Your task to perform on an android device: turn off sleep mode Image 0: 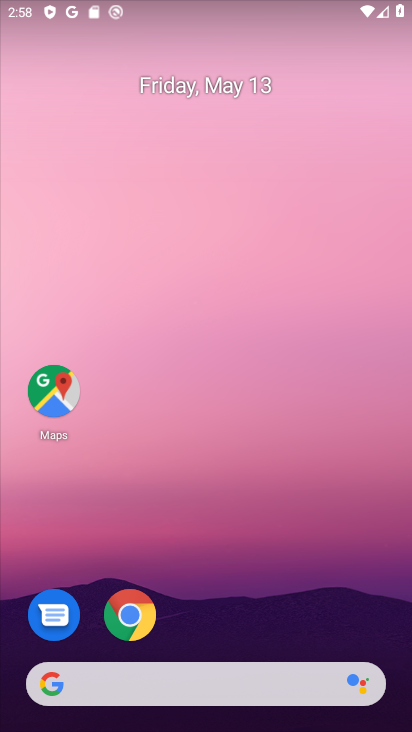
Step 0: drag from (192, 691) to (344, 214)
Your task to perform on an android device: turn off sleep mode Image 1: 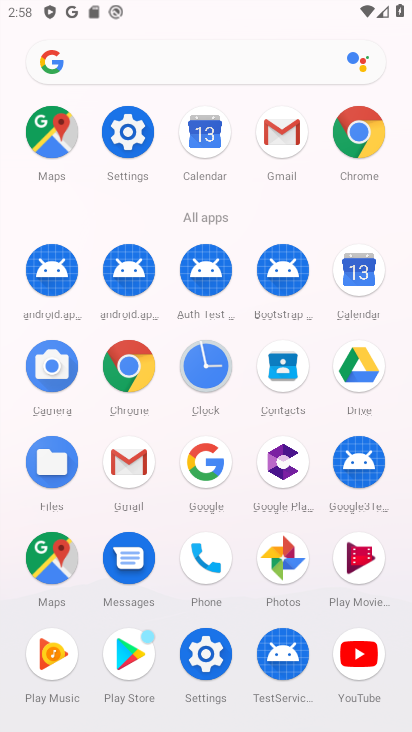
Step 1: click (142, 136)
Your task to perform on an android device: turn off sleep mode Image 2: 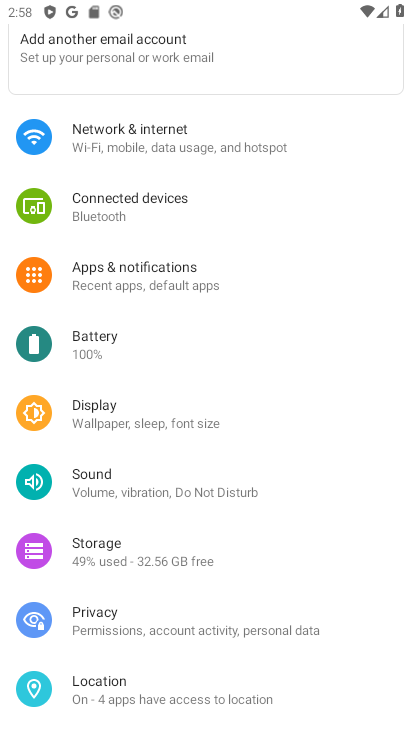
Step 2: click (174, 432)
Your task to perform on an android device: turn off sleep mode Image 3: 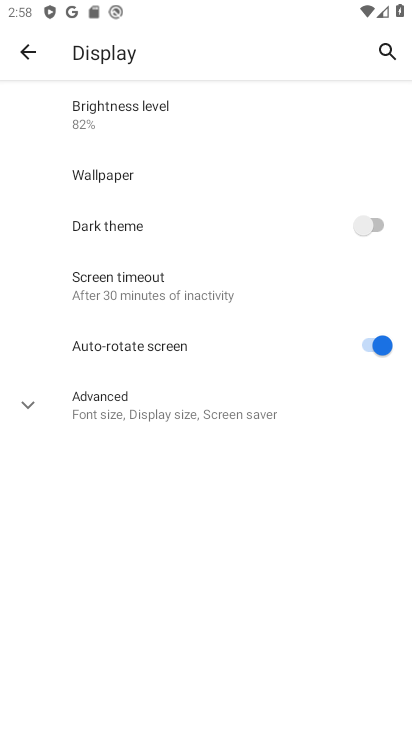
Step 3: task complete